Your task to perform on an android device: delete a single message in the gmail app Image 0: 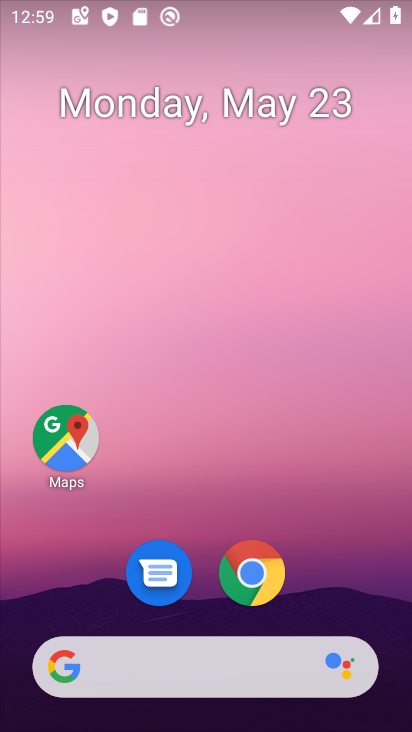
Step 0: drag from (329, 678) to (366, 162)
Your task to perform on an android device: delete a single message in the gmail app Image 1: 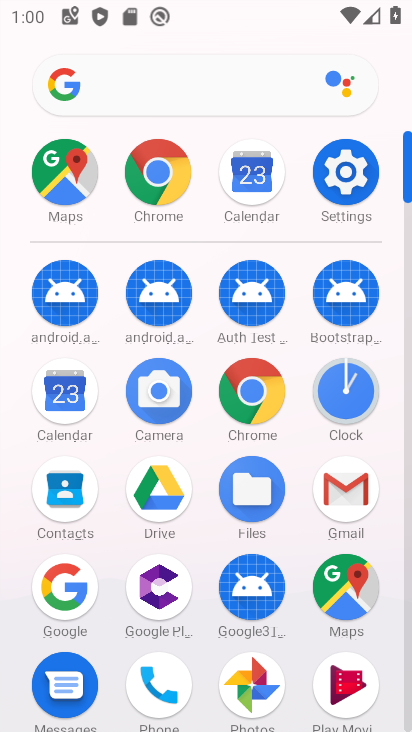
Step 1: click (348, 500)
Your task to perform on an android device: delete a single message in the gmail app Image 2: 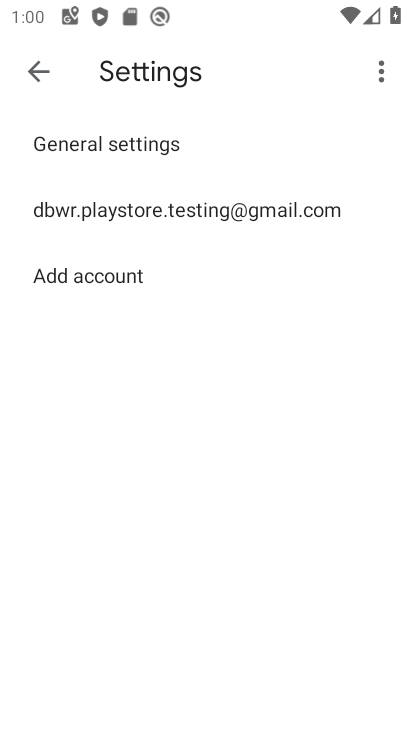
Step 2: click (347, 489)
Your task to perform on an android device: delete a single message in the gmail app Image 3: 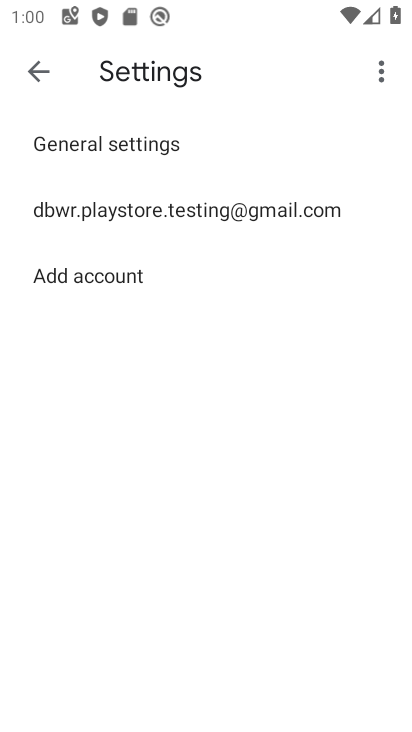
Step 3: click (347, 489)
Your task to perform on an android device: delete a single message in the gmail app Image 4: 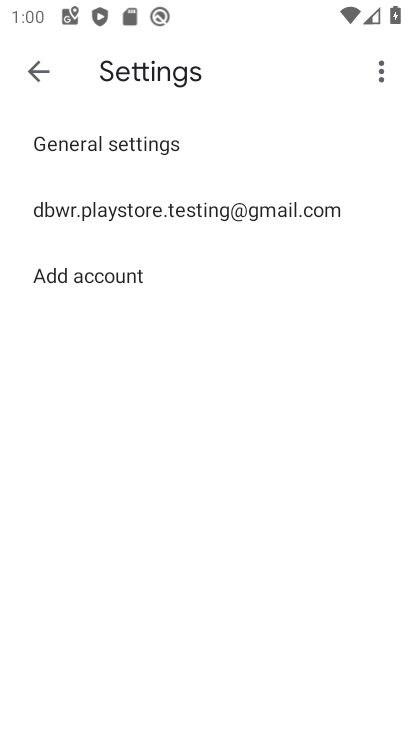
Step 4: click (347, 489)
Your task to perform on an android device: delete a single message in the gmail app Image 5: 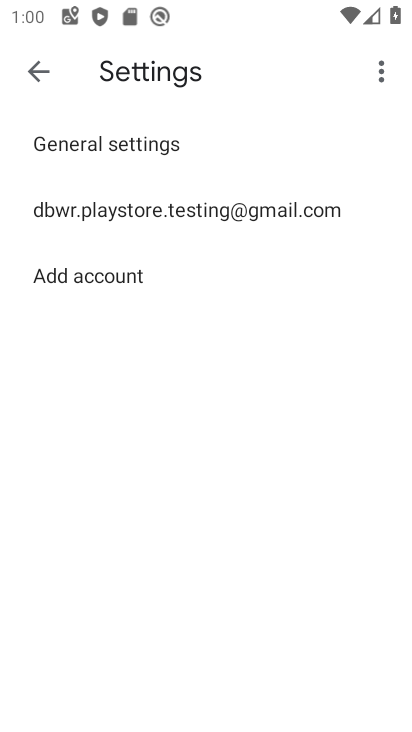
Step 5: click (347, 489)
Your task to perform on an android device: delete a single message in the gmail app Image 6: 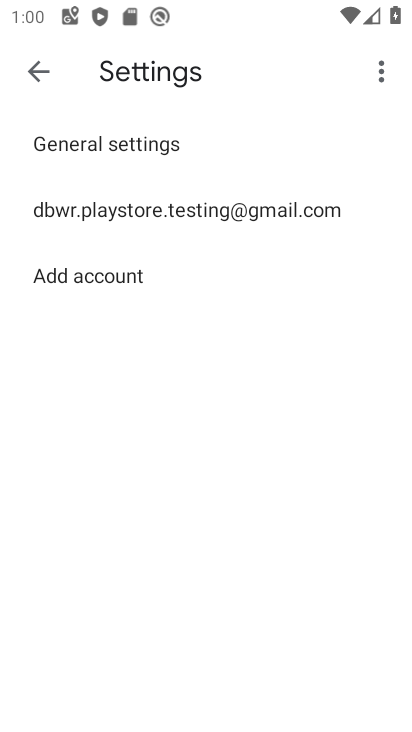
Step 6: click (347, 489)
Your task to perform on an android device: delete a single message in the gmail app Image 7: 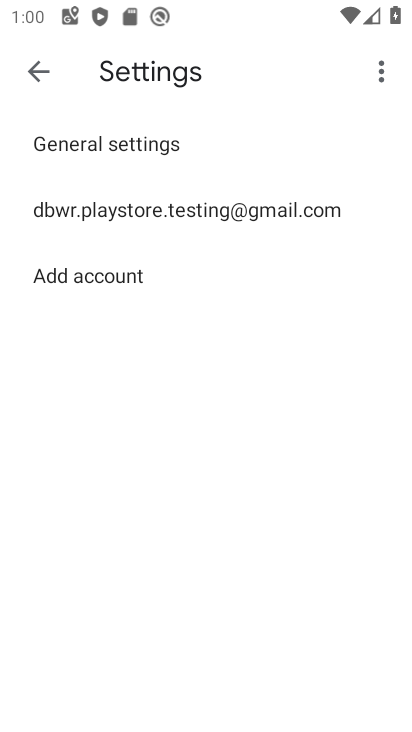
Step 7: task complete